Your task to perform on an android device: See recent photos Image 0: 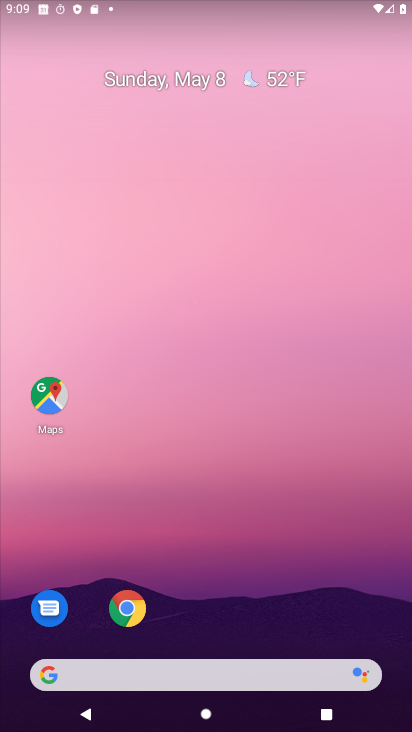
Step 0: drag from (295, 609) to (227, 10)
Your task to perform on an android device: See recent photos Image 1: 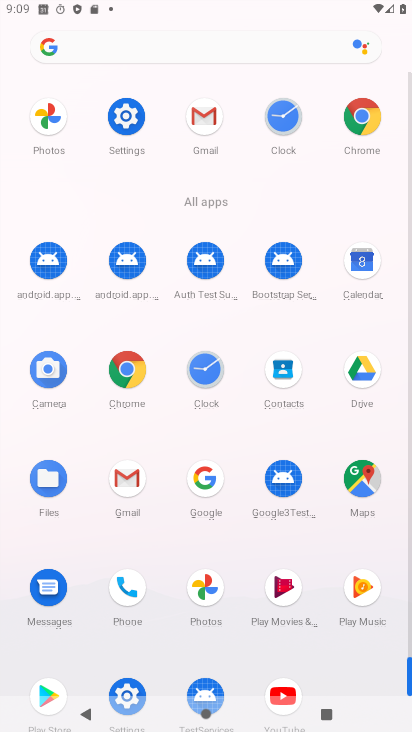
Step 1: click (196, 585)
Your task to perform on an android device: See recent photos Image 2: 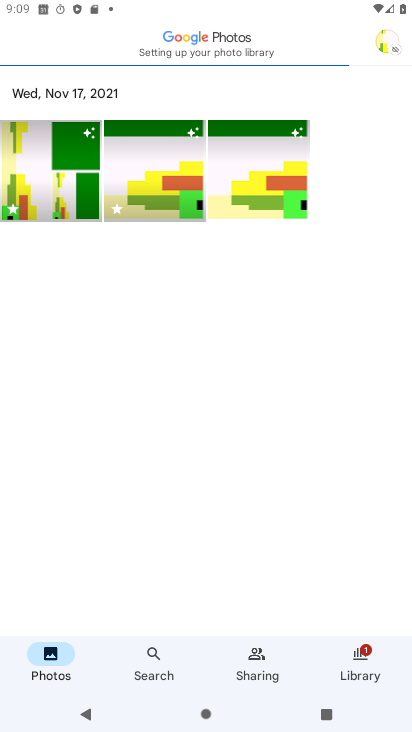
Step 2: click (39, 189)
Your task to perform on an android device: See recent photos Image 3: 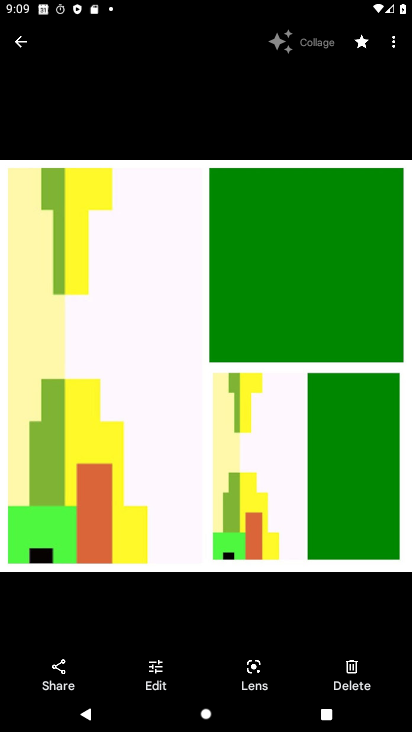
Step 3: task complete